Your task to perform on an android device: Toggle the flashlight Image 0: 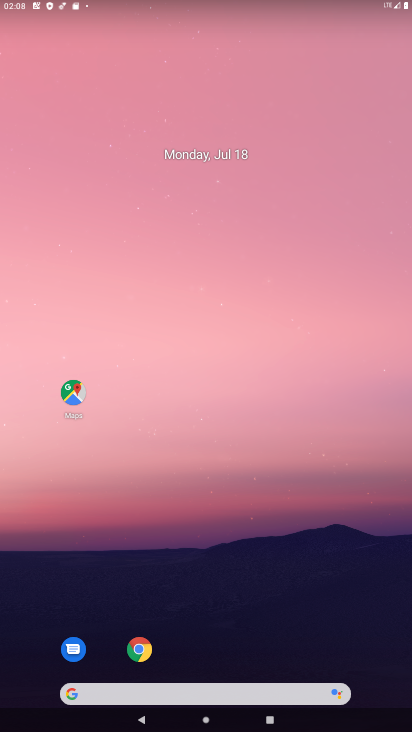
Step 0: drag from (276, 5) to (211, 588)
Your task to perform on an android device: Toggle the flashlight Image 1: 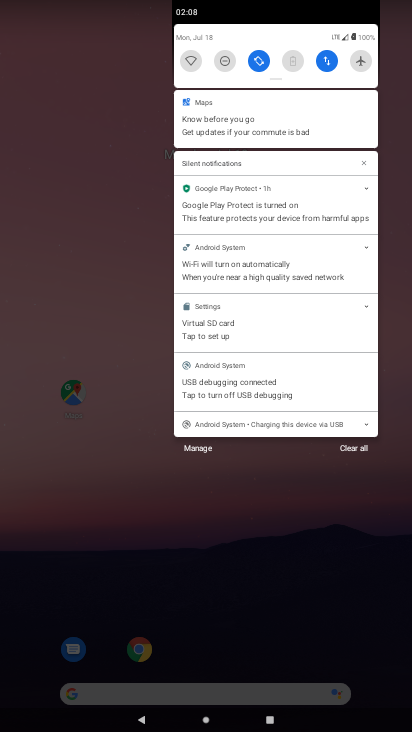
Step 1: task complete